Your task to perform on an android device: see sites visited before in the chrome app Image 0: 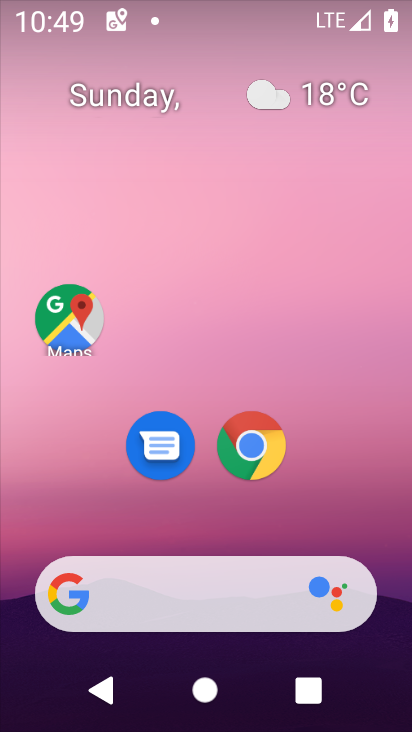
Step 0: click (246, 437)
Your task to perform on an android device: see sites visited before in the chrome app Image 1: 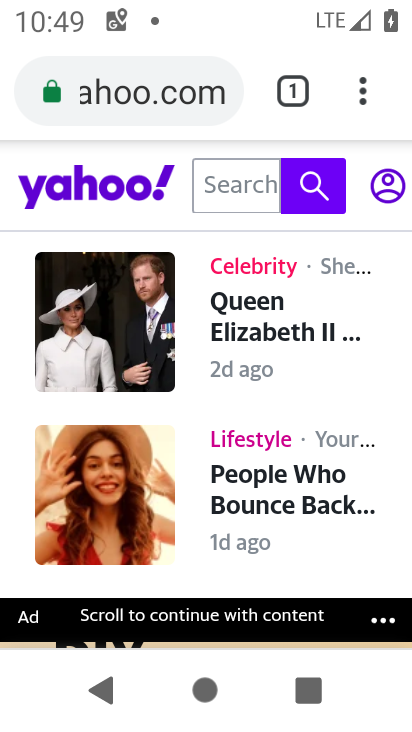
Step 1: click (362, 82)
Your task to perform on an android device: see sites visited before in the chrome app Image 2: 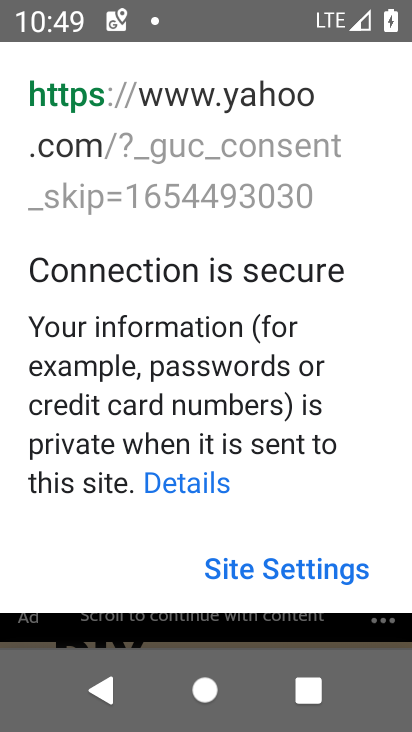
Step 2: press back button
Your task to perform on an android device: see sites visited before in the chrome app Image 3: 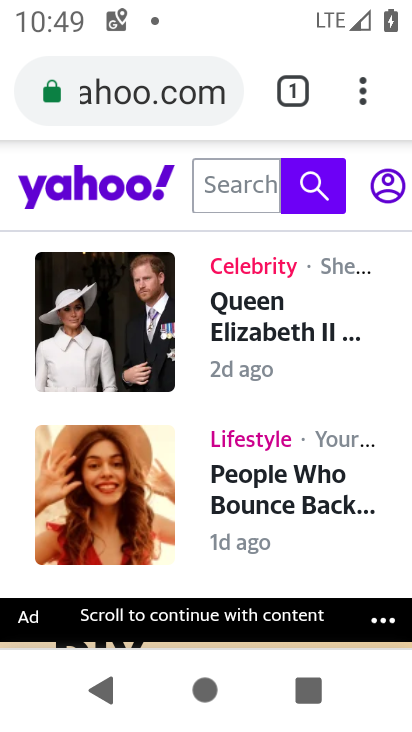
Step 3: click (364, 86)
Your task to perform on an android device: see sites visited before in the chrome app Image 4: 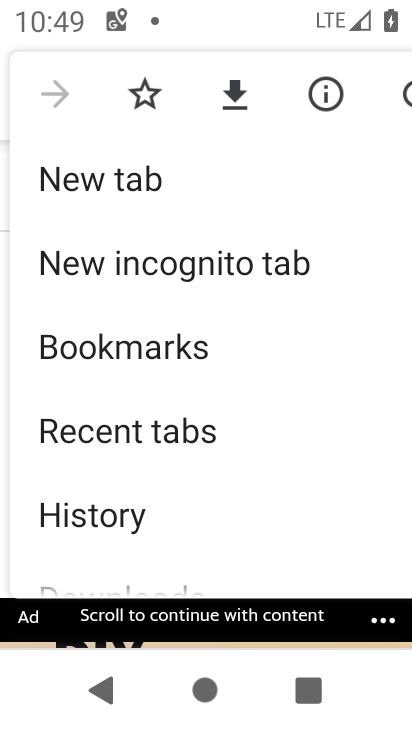
Step 4: click (174, 512)
Your task to perform on an android device: see sites visited before in the chrome app Image 5: 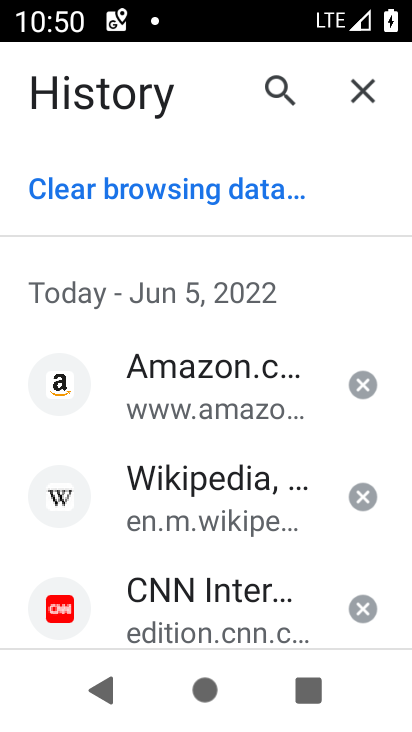
Step 5: task complete